Your task to perform on an android device: turn on javascript in the chrome app Image 0: 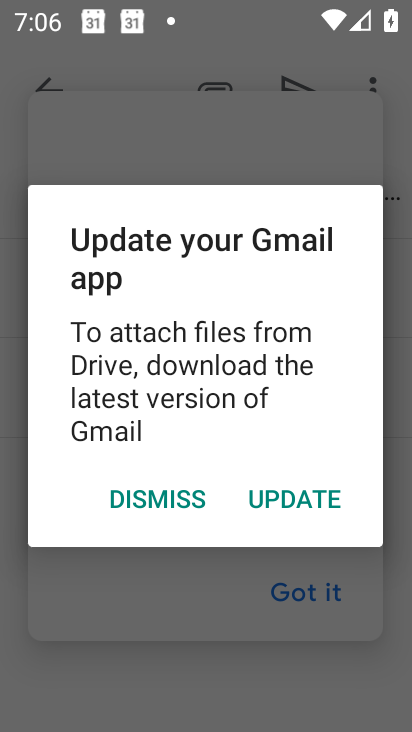
Step 0: press home button
Your task to perform on an android device: turn on javascript in the chrome app Image 1: 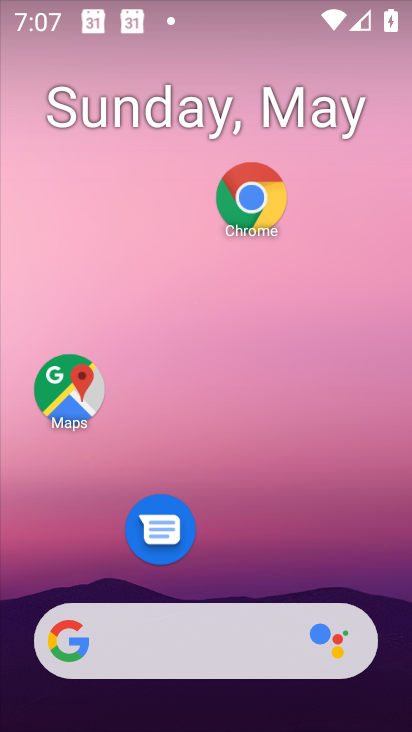
Step 1: click (247, 195)
Your task to perform on an android device: turn on javascript in the chrome app Image 2: 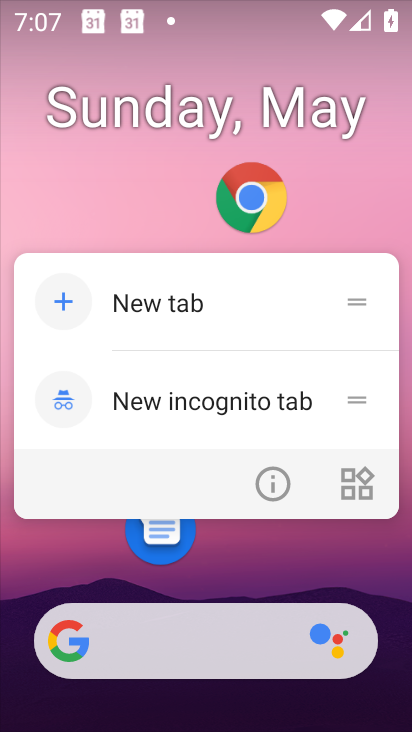
Step 2: click (288, 484)
Your task to perform on an android device: turn on javascript in the chrome app Image 3: 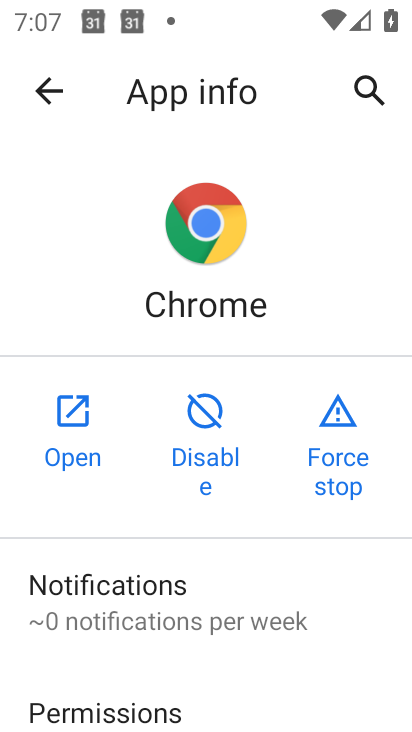
Step 3: click (83, 404)
Your task to perform on an android device: turn on javascript in the chrome app Image 4: 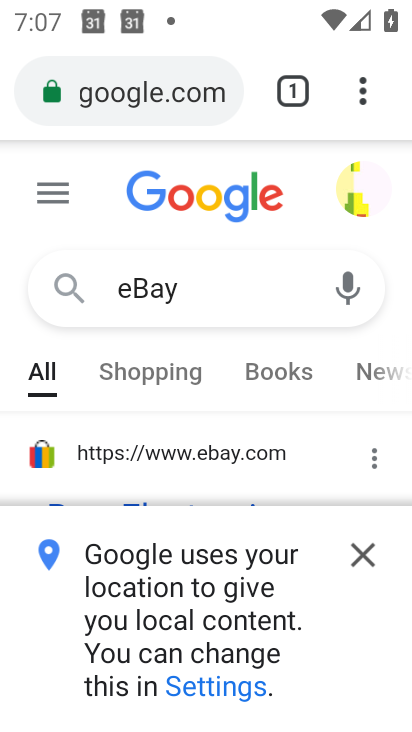
Step 4: click (362, 88)
Your task to perform on an android device: turn on javascript in the chrome app Image 5: 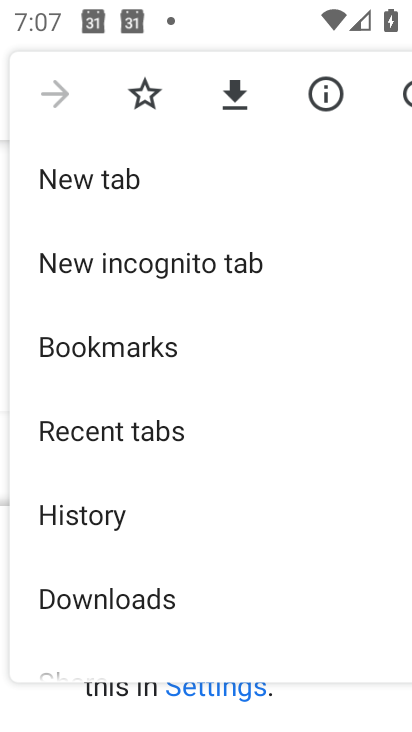
Step 5: drag from (199, 528) to (255, 194)
Your task to perform on an android device: turn on javascript in the chrome app Image 6: 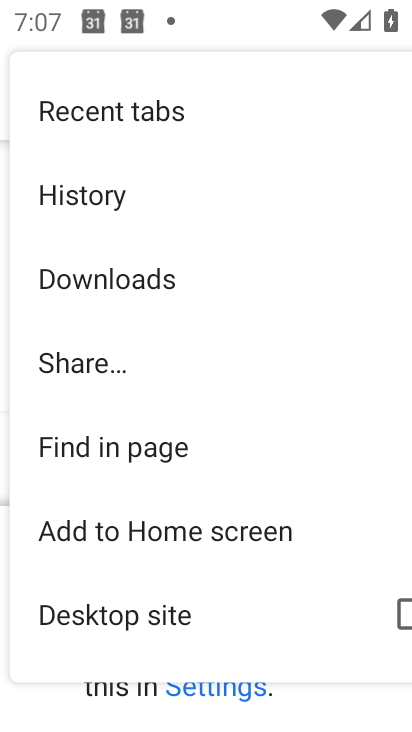
Step 6: drag from (175, 542) to (216, 252)
Your task to perform on an android device: turn on javascript in the chrome app Image 7: 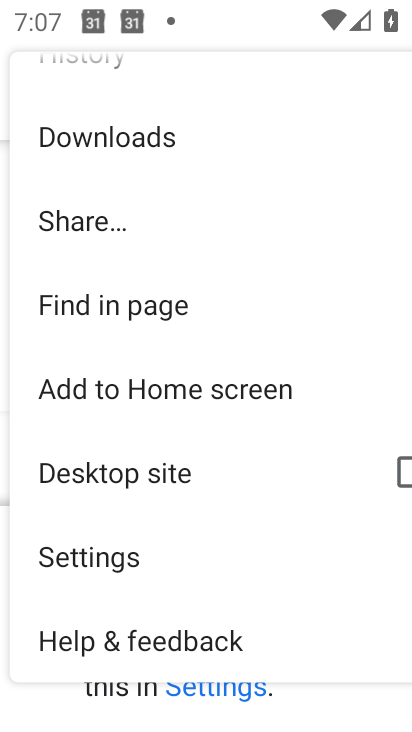
Step 7: click (124, 552)
Your task to perform on an android device: turn on javascript in the chrome app Image 8: 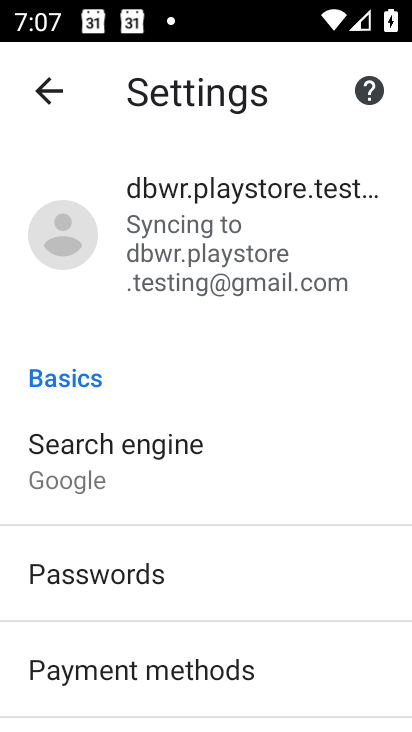
Step 8: drag from (177, 624) to (202, 315)
Your task to perform on an android device: turn on javascript in the chrome app Image 9: 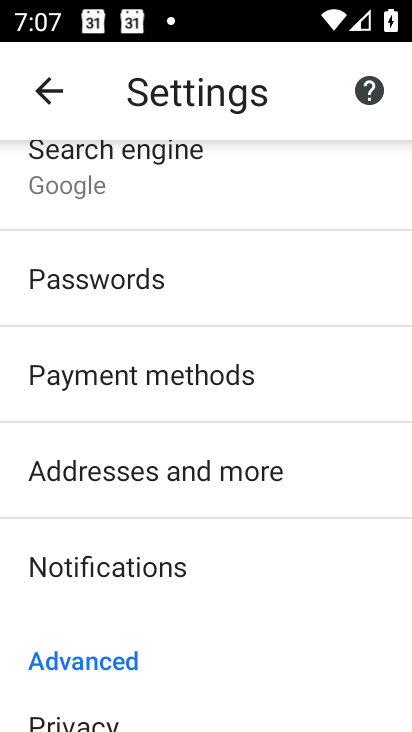
Step 9: drag from (141, 649) to (150, 527)
Your task to perform on an android device: turn on javascript in the chrome app Image 10: 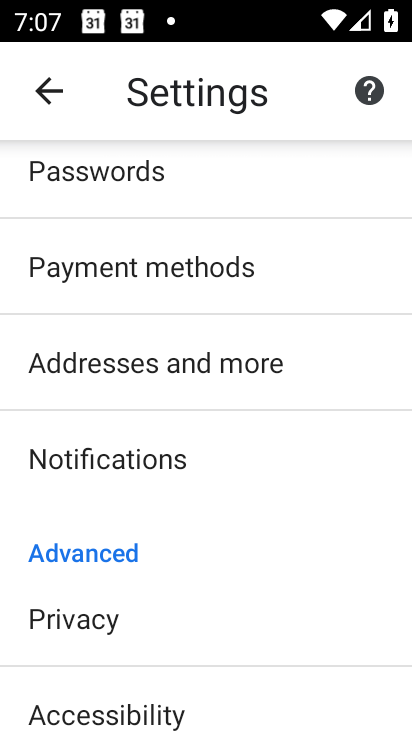
Step 10: drag from (87, 552) to (112, 408)
Your task to perform on an android device: turn on javascript in the chrome app Image 11: 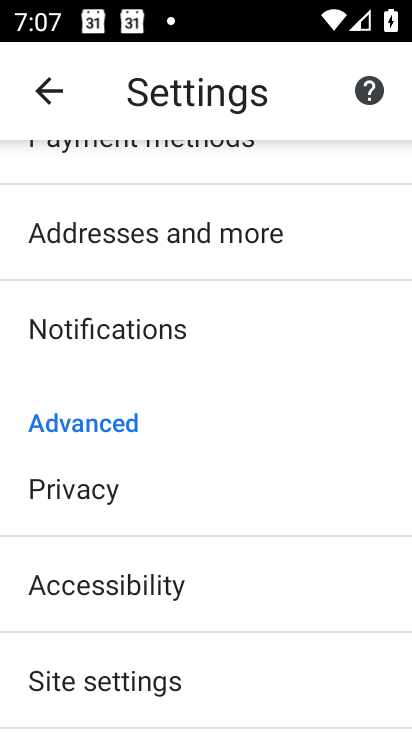
Step 11: click (122, 681)
Your task to perform on an android device: turn on javascript in the chrome app Image 12: 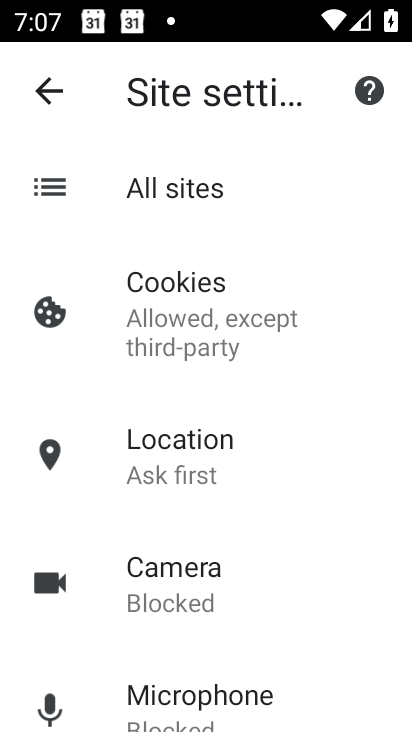
Step 12: drag from (186, 632) to (279, 339)
Your task to perform on an android device: turn on javascript in the chrome app Image 13: 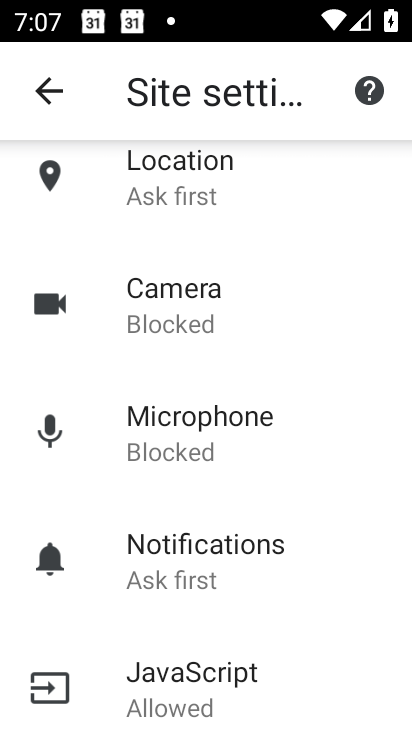
Step 13: click (216, 662)
Your task to perform on an android device: turn on javascript in the chrome app Image 14: 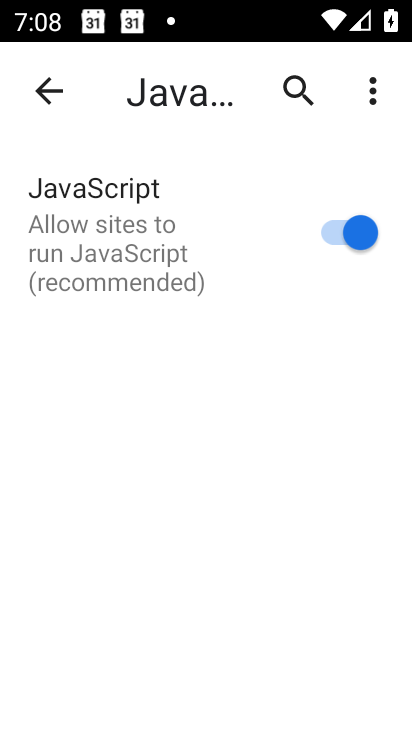
Step 14: task complete